Your task to perform on an android device: Show me the alarms in the clock app Image 0: 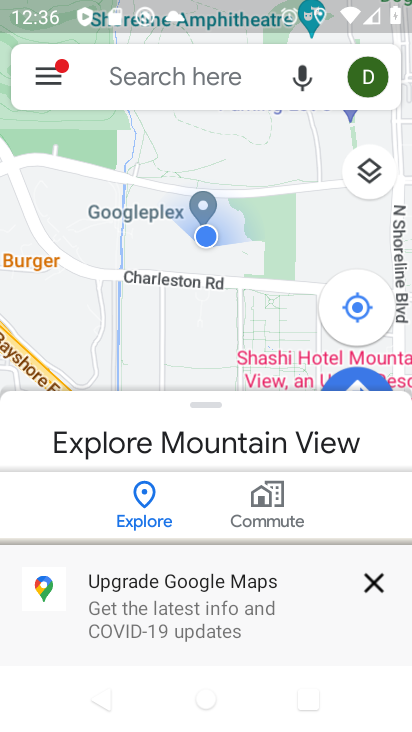
Step 0: press home button
Your task to perform on an android device: Show me the alarms in the clock app Image 1: 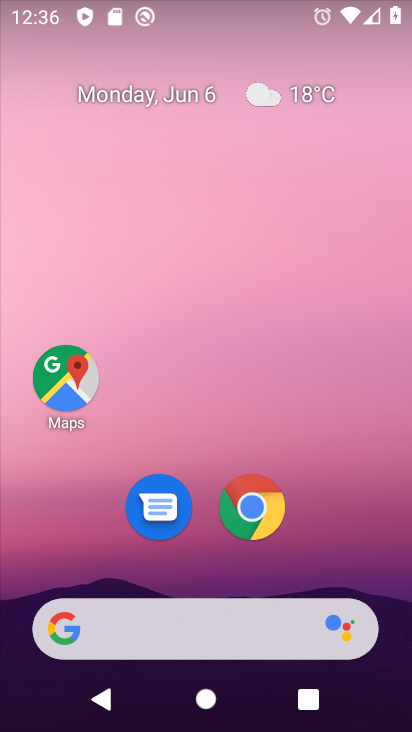
Step 1: drag from (240, 579) to (248, 72)
Your task to perform on an android device: Show me the alarms in the clock app Image 2: 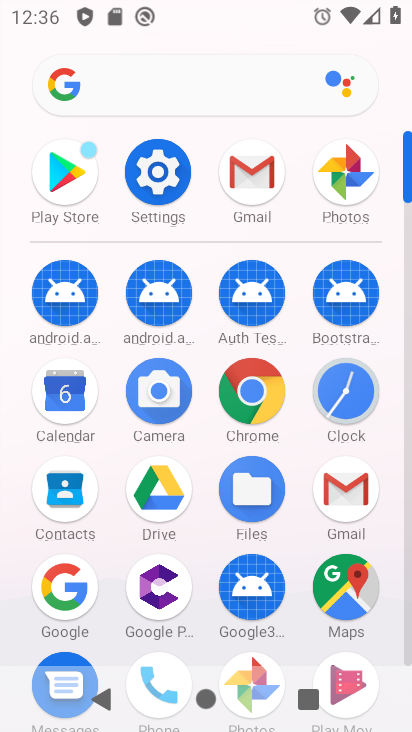
Step 2: click (349, 403)
Your task to perform on an android device: Show me the alarms in the clock app Image 3: 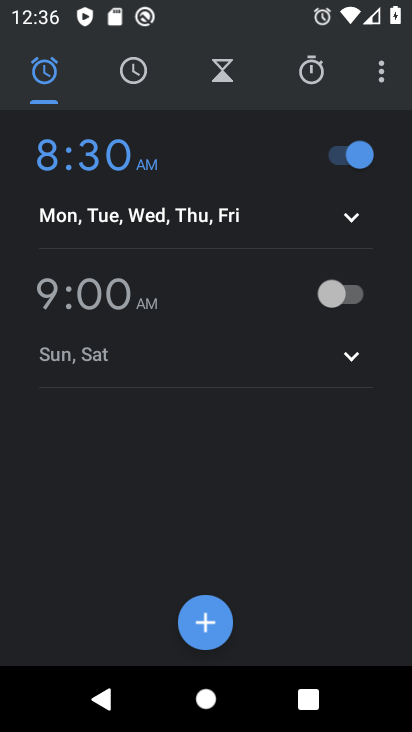
Step 3: task complete